Your task to perform on an android device: change timer sound Image 0: 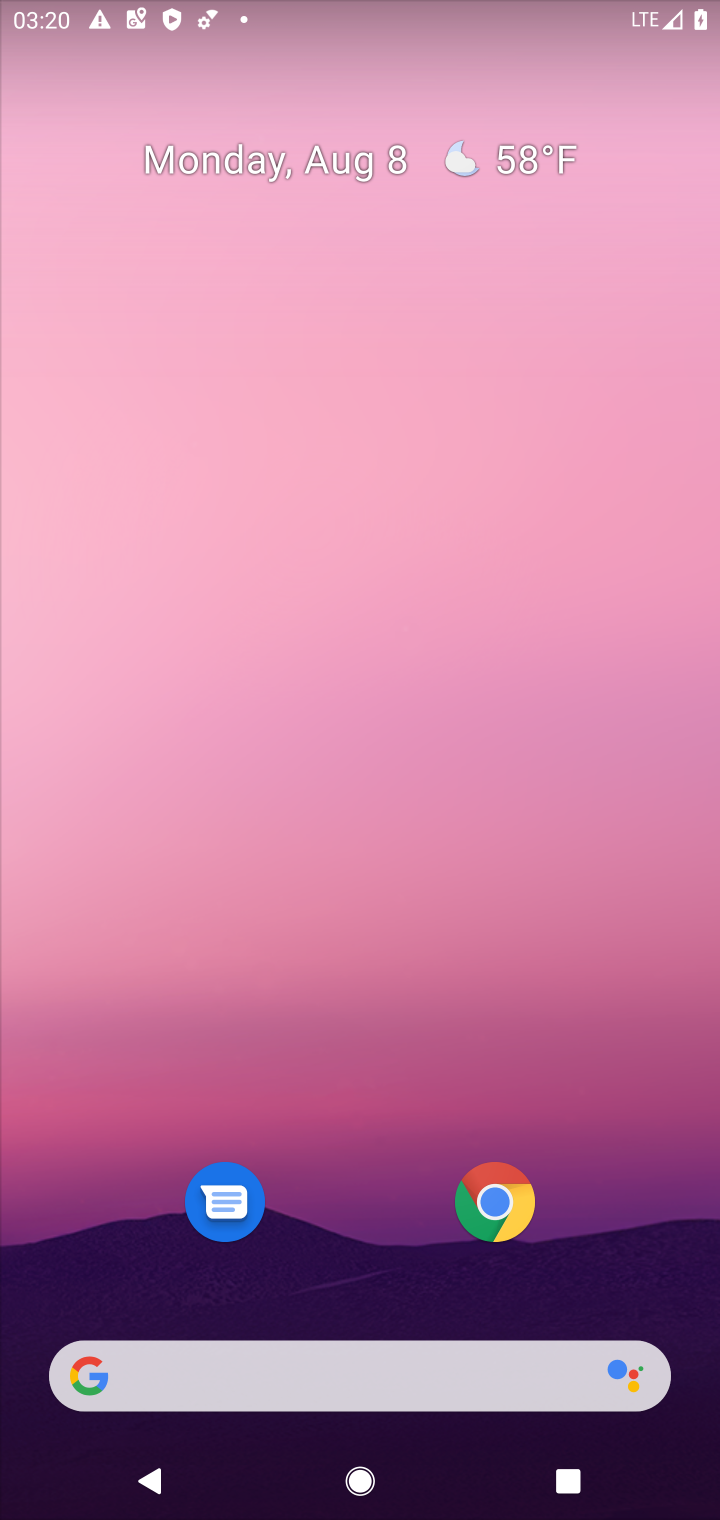
Step 0: drag from (397, 1286) to (574, 239)
Your task to perform on an android device: change timer sound Image 1: 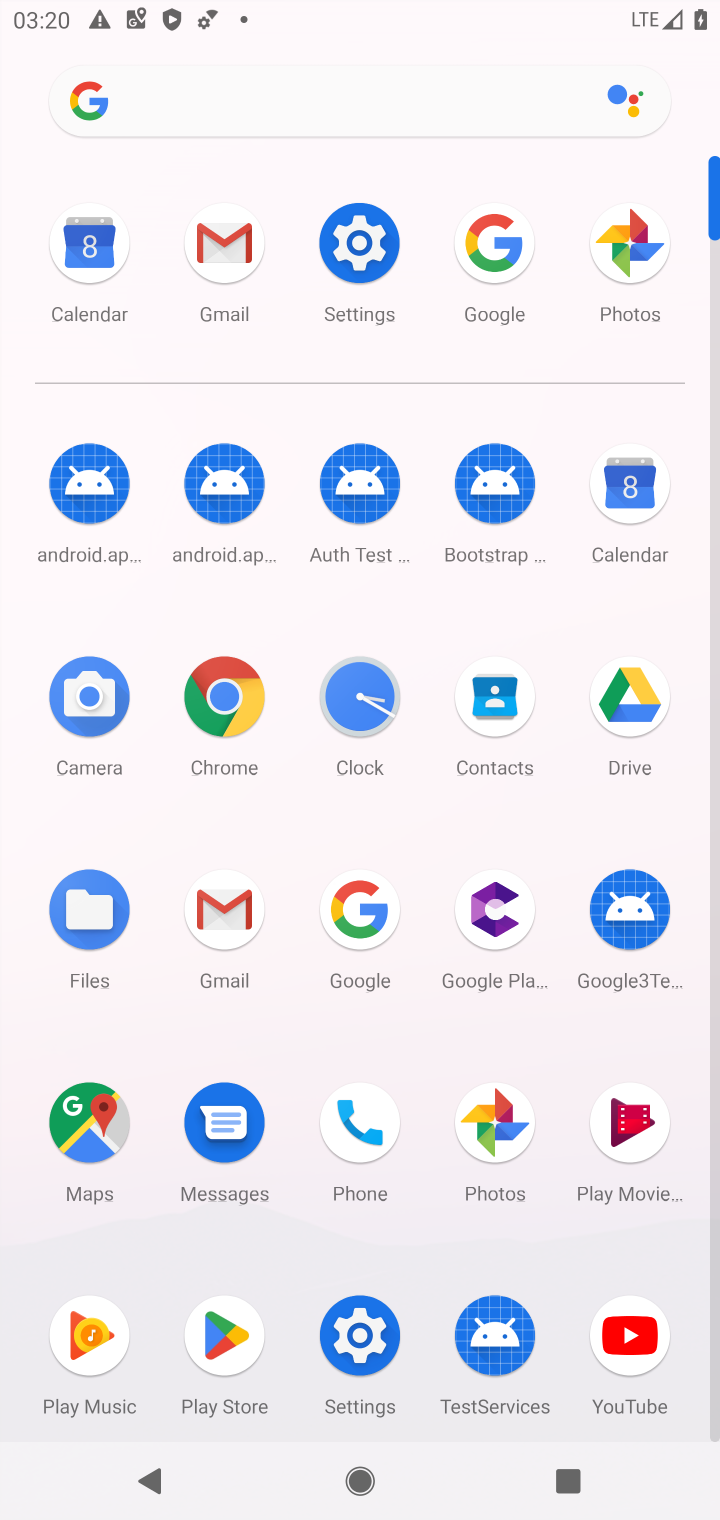
Step 1: click (387, 706)
Your task to perform on an android device: change timer sound Image 2: 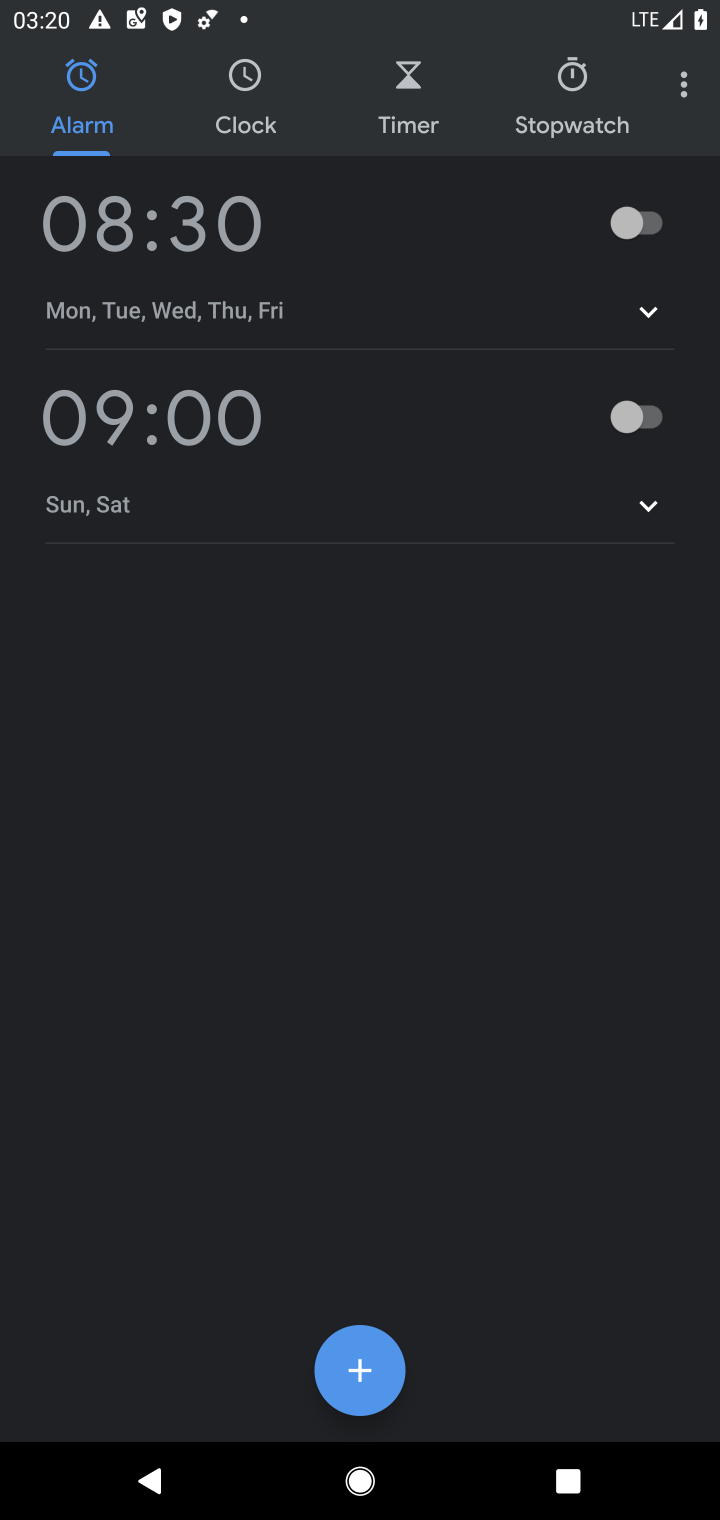
Step 2: click (680, 104)
Your task to perform on an android device: change timer sound Image 3: 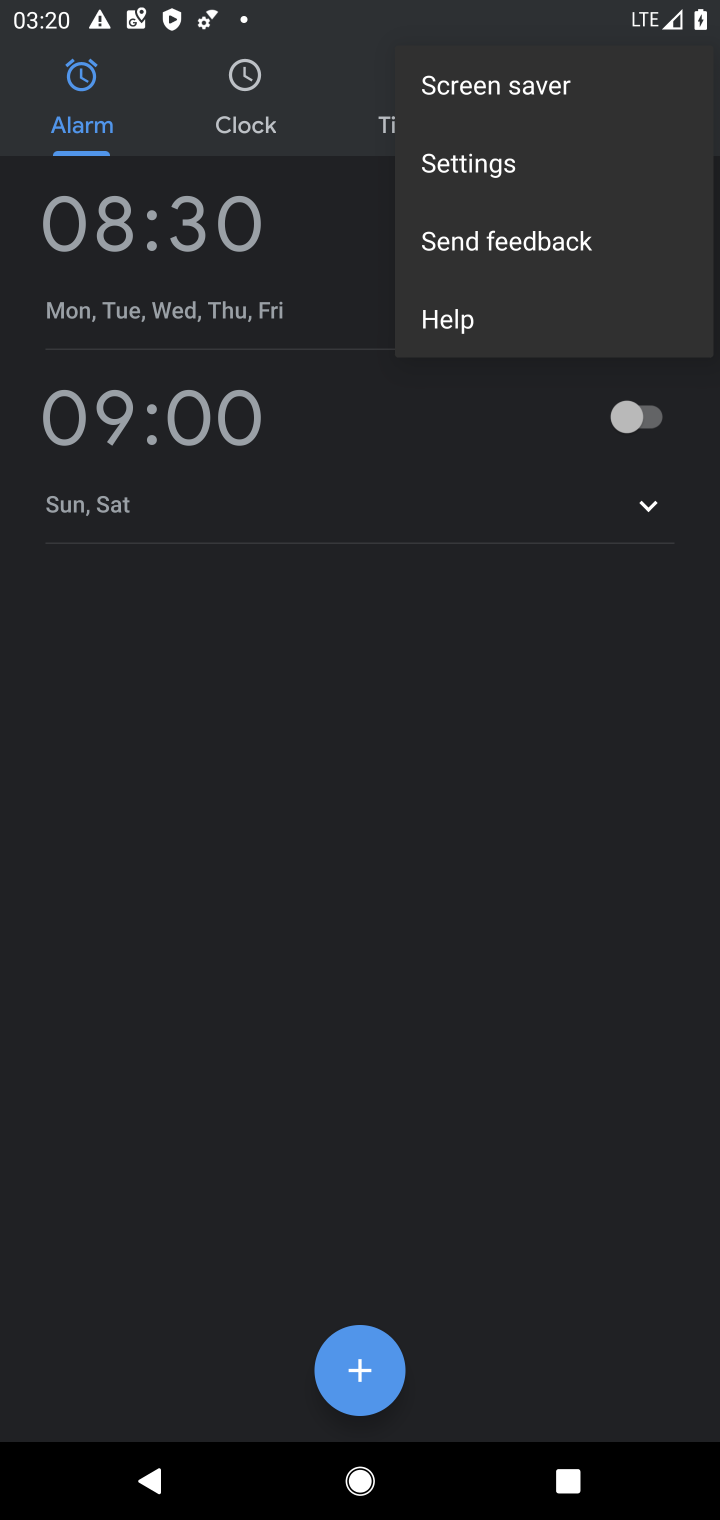
Step 3: click (496, 154)
Your task to perform on an android device: change timer sound Image 4: 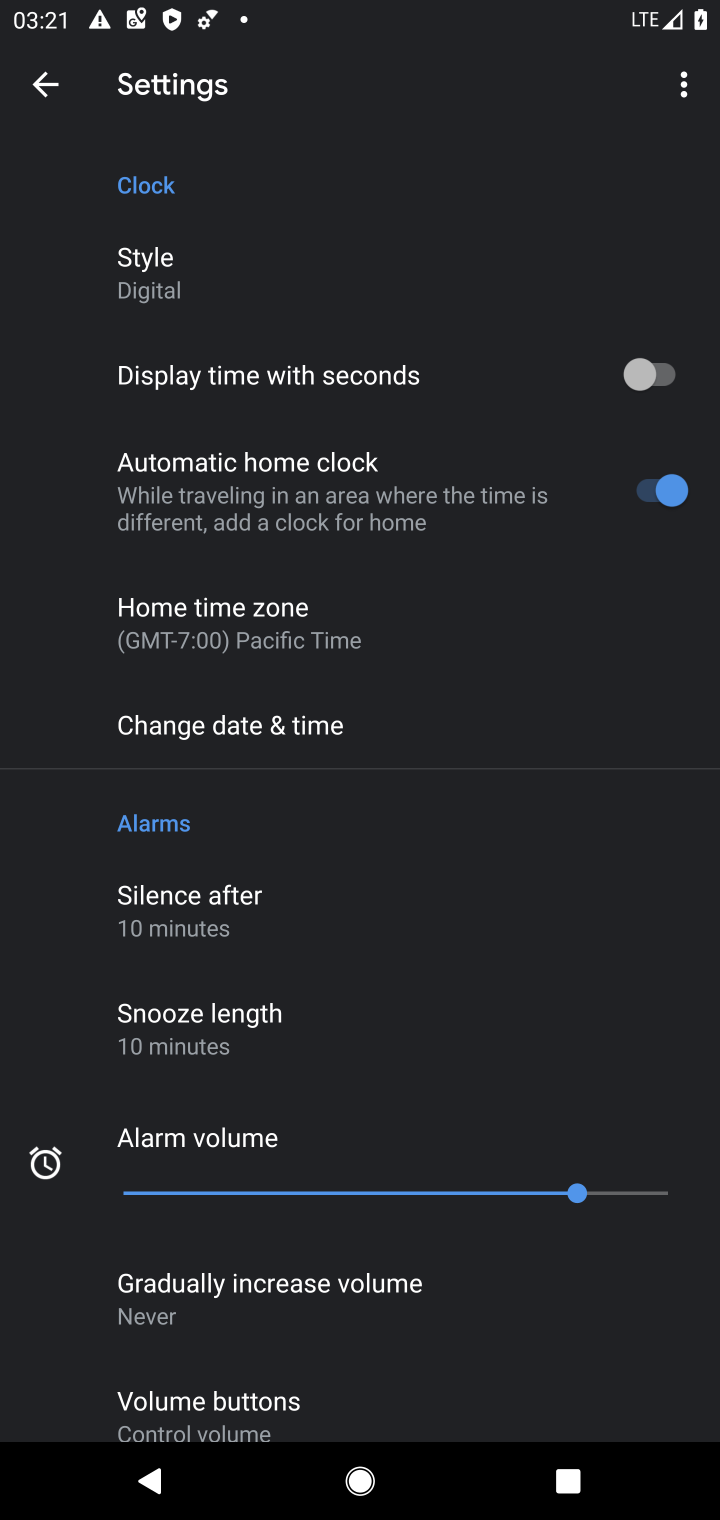
Step 4: drag from (542, 951) to (514, 350)
Your task to perform on an android device: change timer sound Image 5: 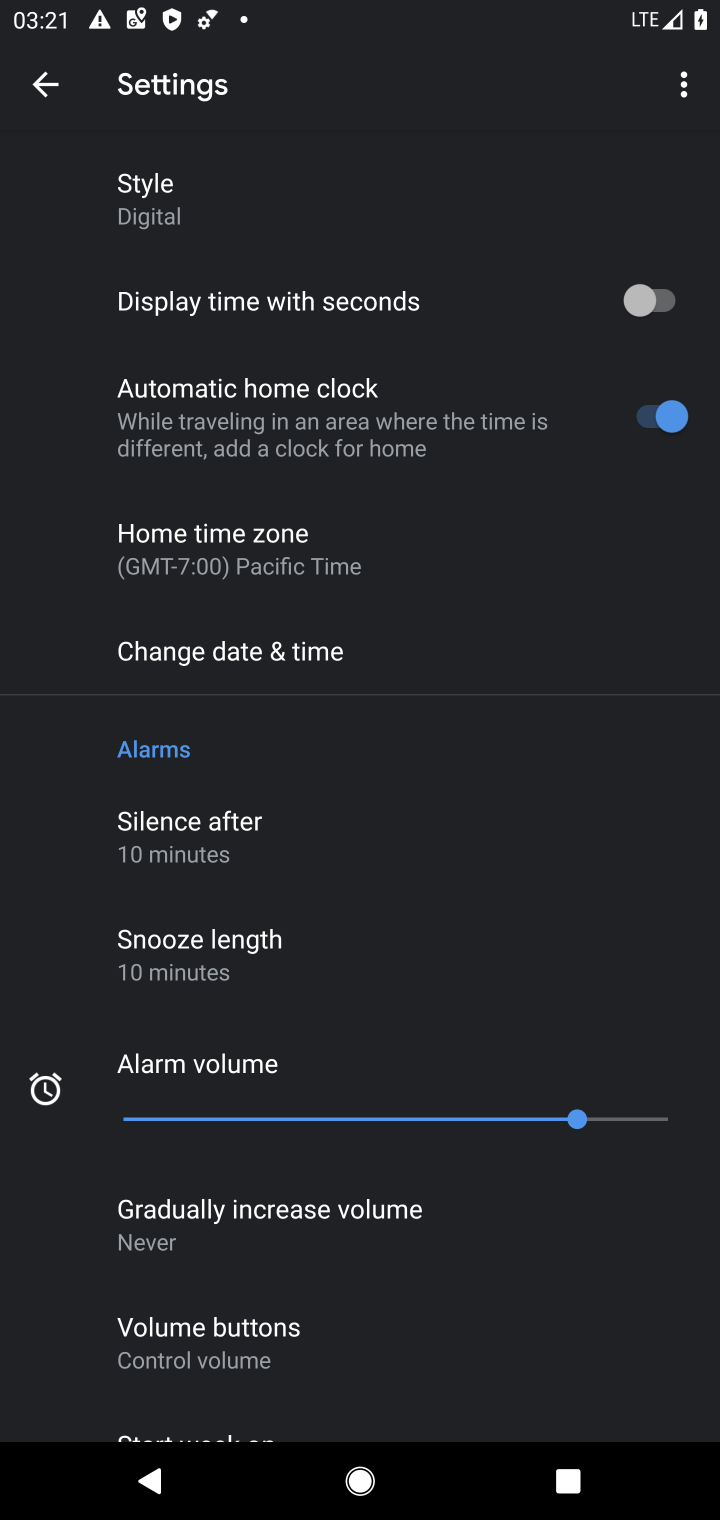
Step 5: click (317, 549)
Your task to perform on an android device: change timer sound Image 6: 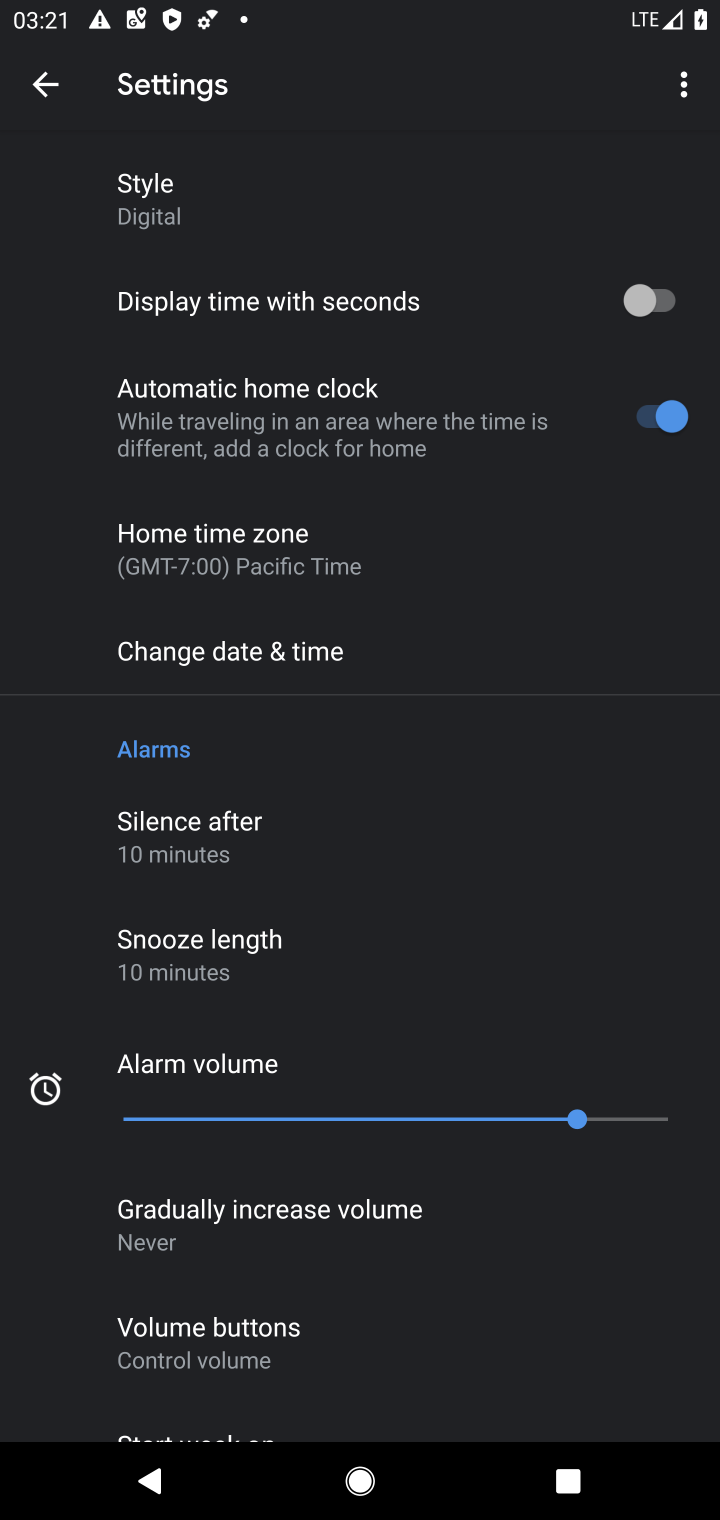
Step 6: drag from (274, 1167) to (338, 411)
Your task to perform on an android device: change timer sound Image 7: 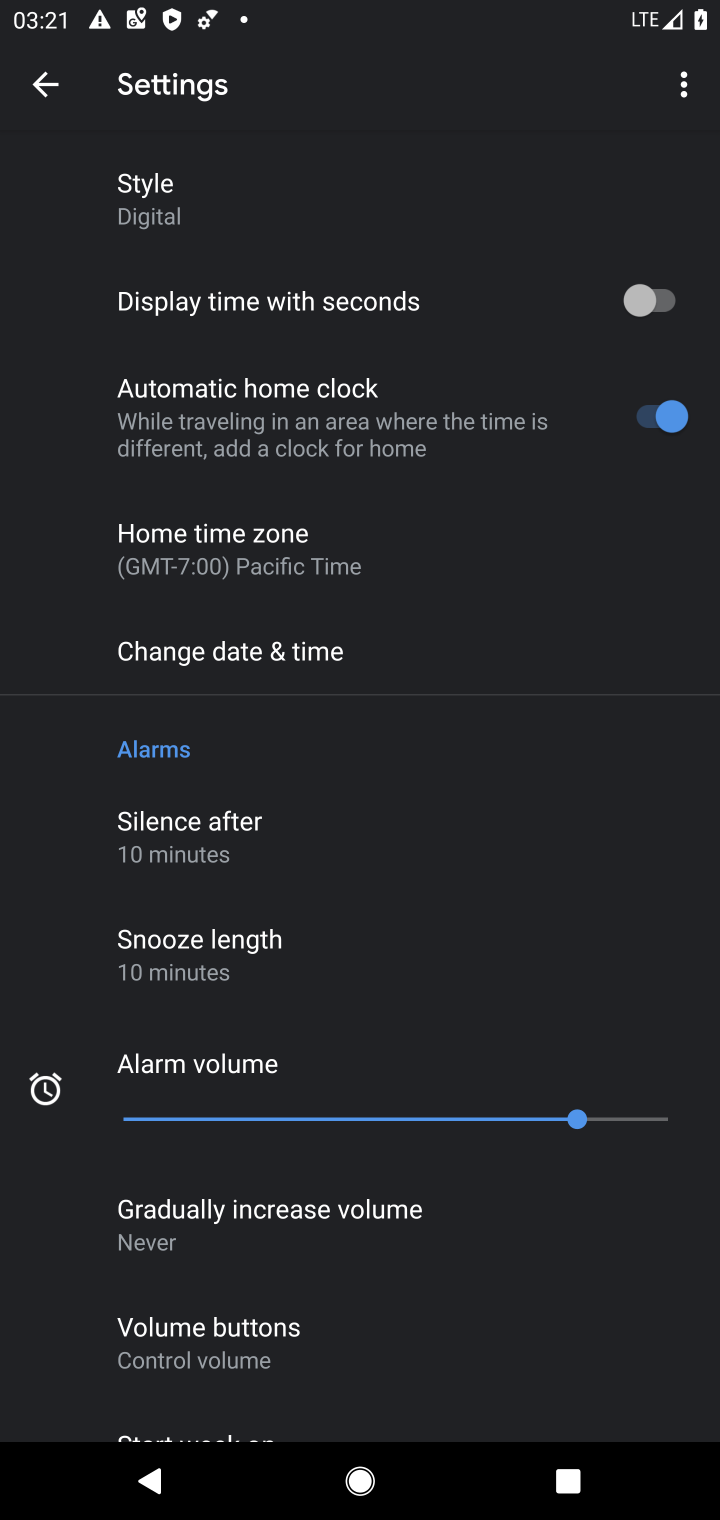
Step 7: drag from (344, 1302) to (413, 742)
Your task to perform on an android device: change timer sound Image 8: 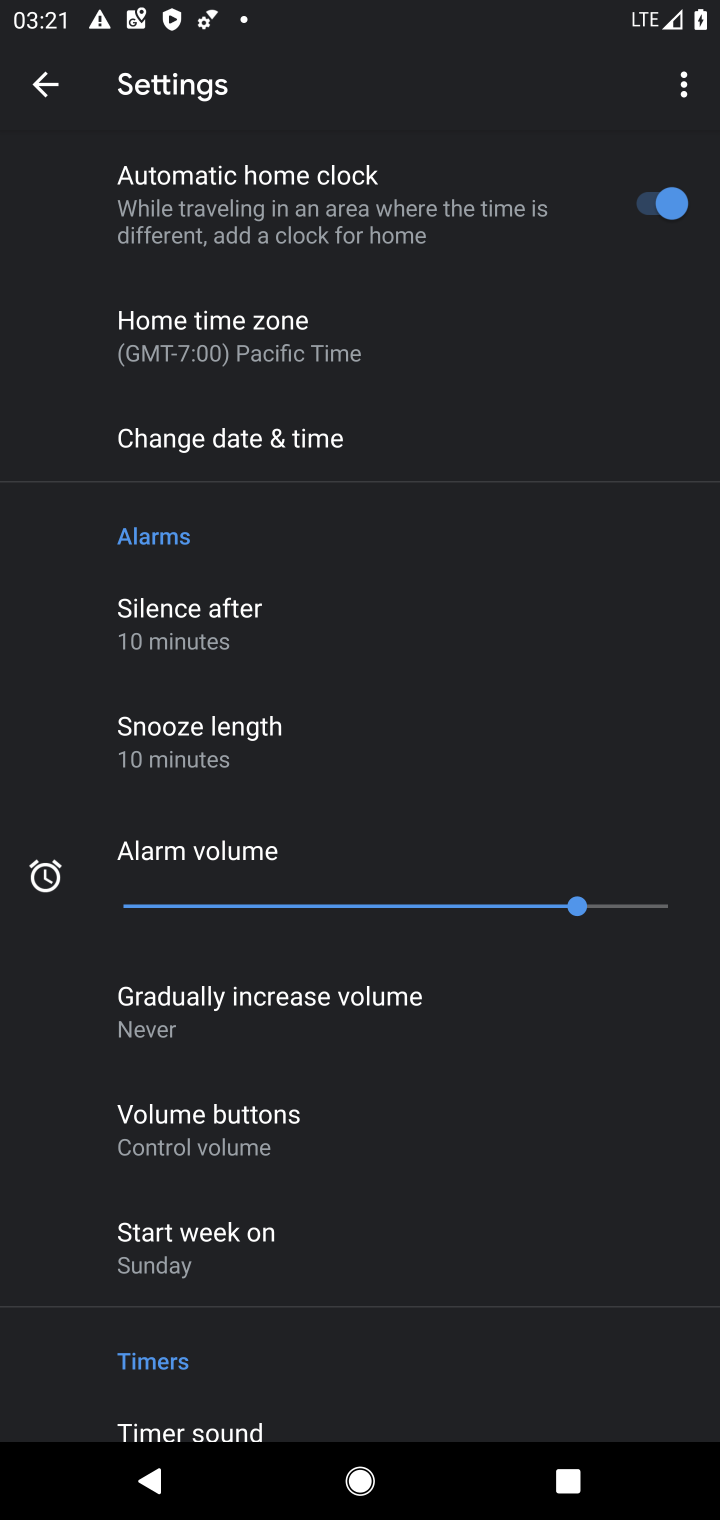
Step 8: click (197, 1445)
Your task to perform on an android device: change timer sound Image 9: 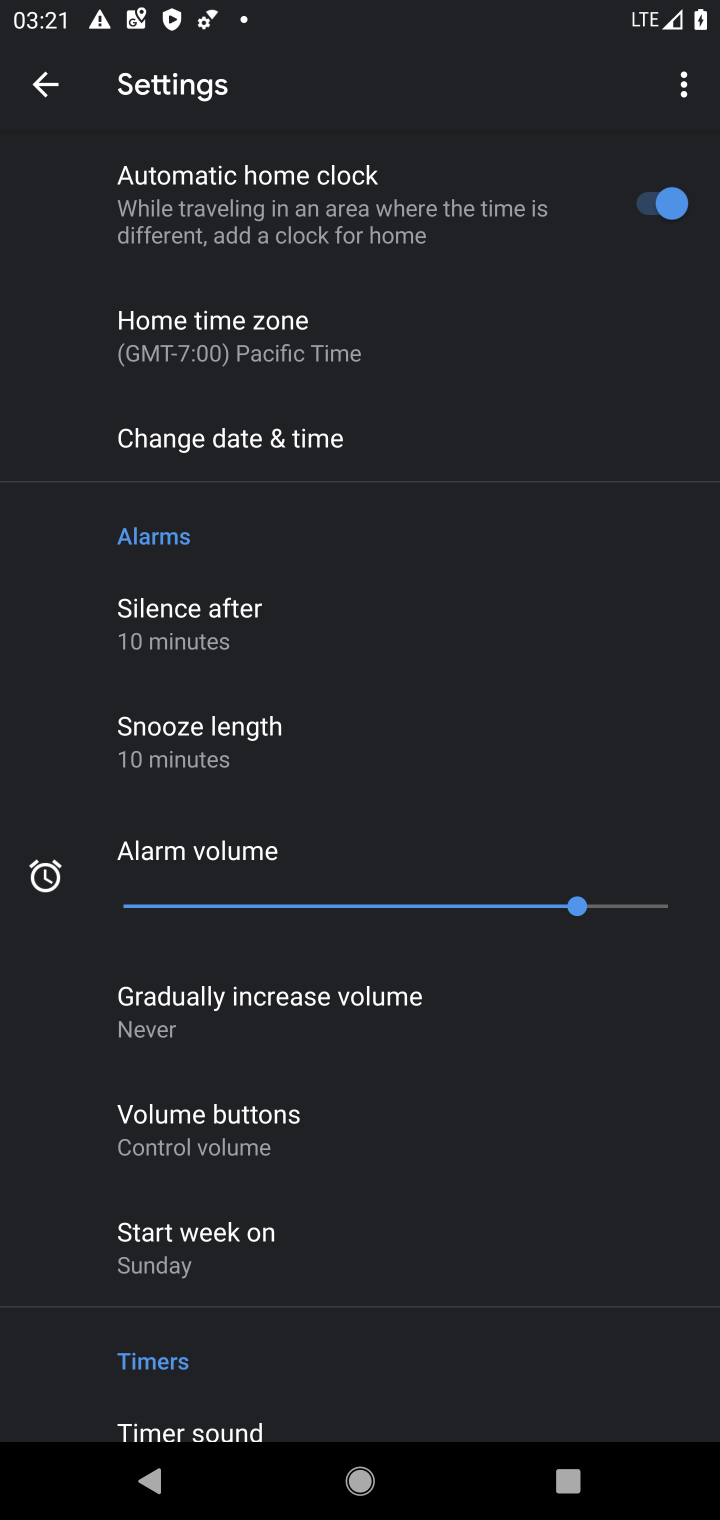
Step 9: click (183, 1417)
Your task to perform on an android device: change timer sound Image 10: 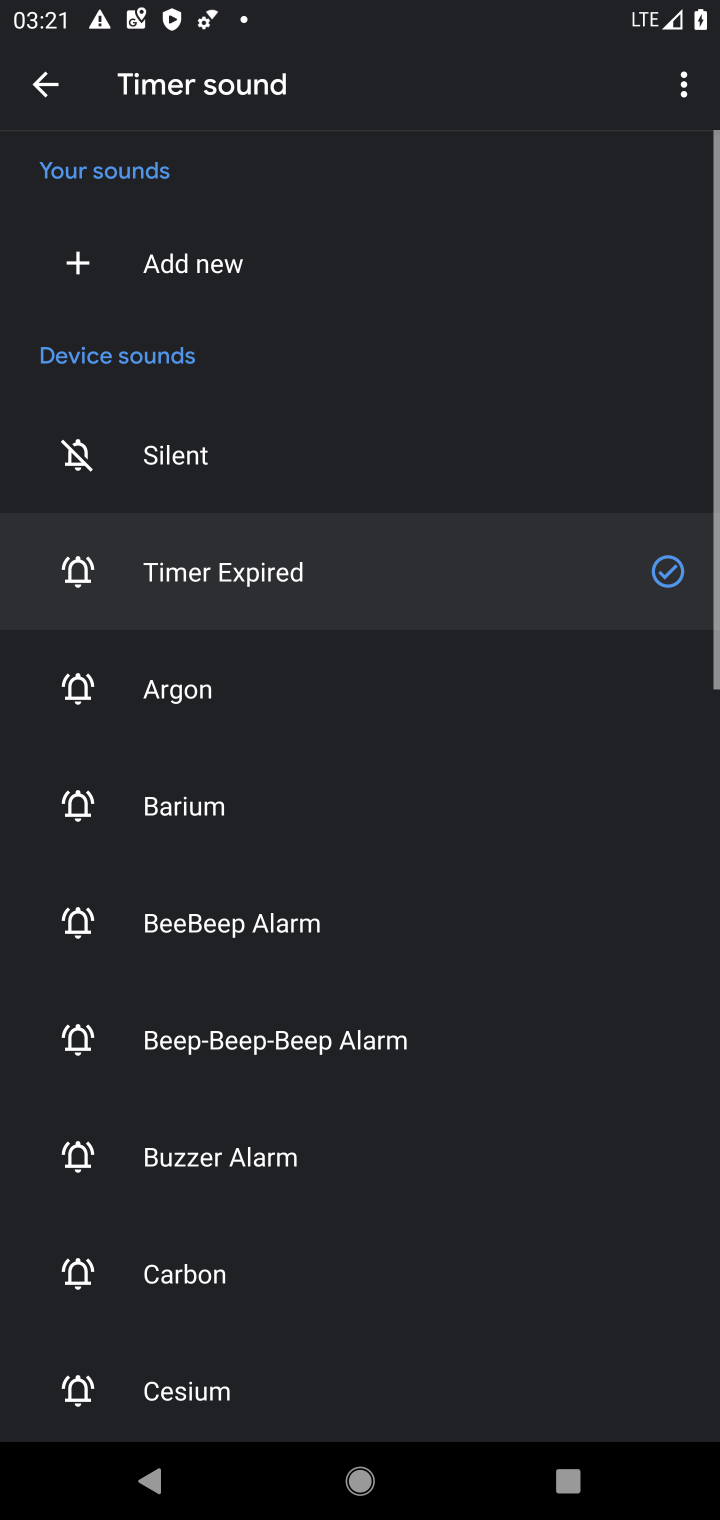
Step 10: click (240, 864)
Your task to perform on an android device: change timer sound Image 11: 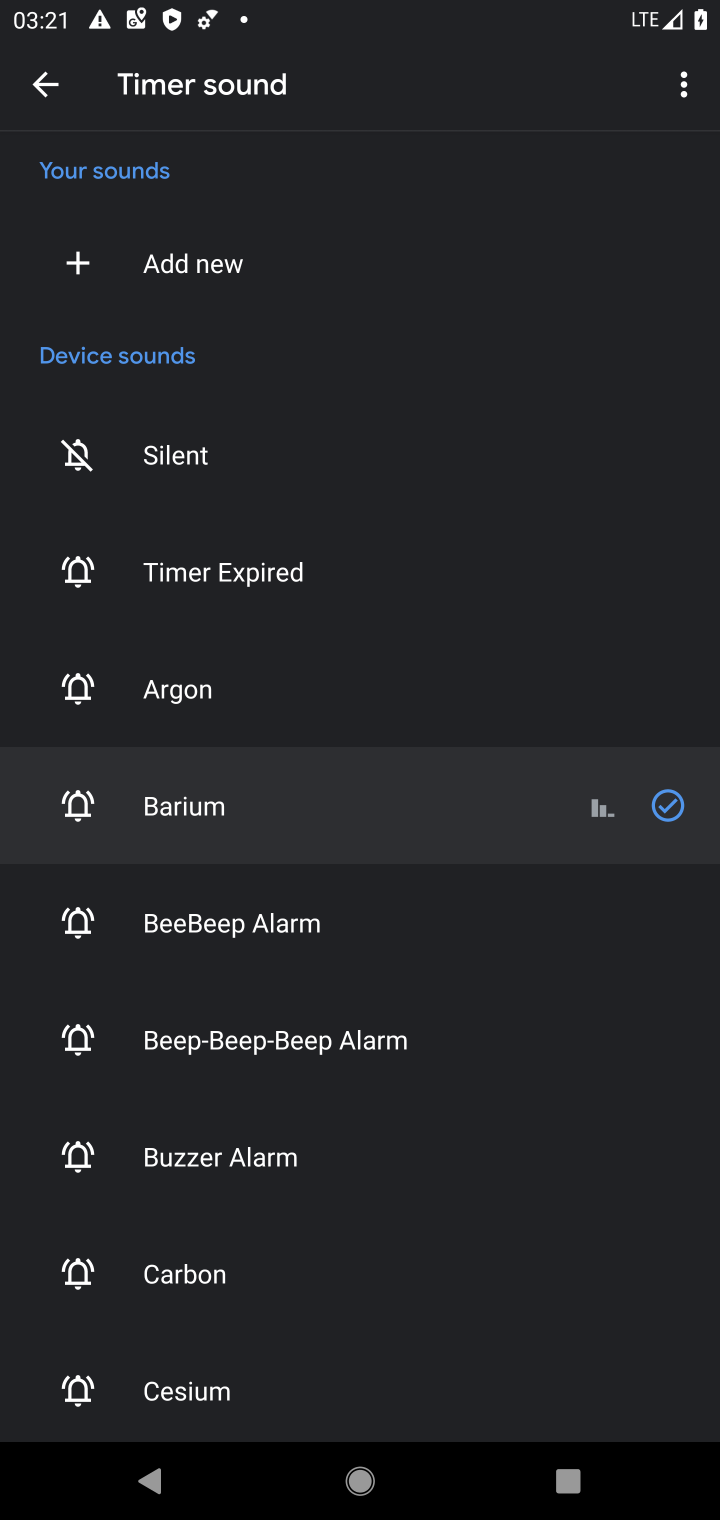
Step 11: task complete